Your task to perform on an android device: Open notification settings Image 0: 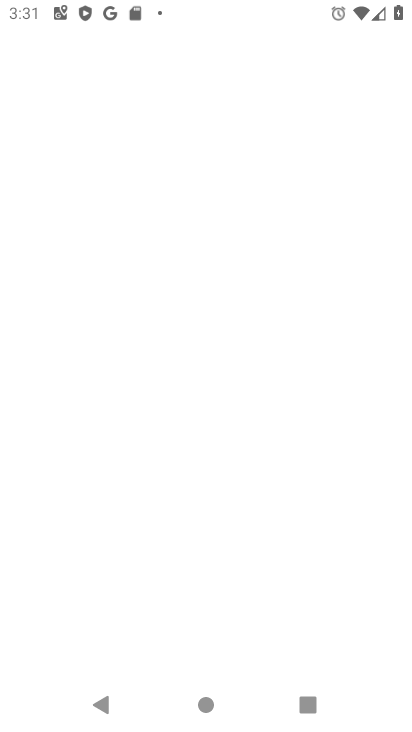
Step 0: click (121, 544)
Your task to perform on an android device: Open notification settings Image 1: 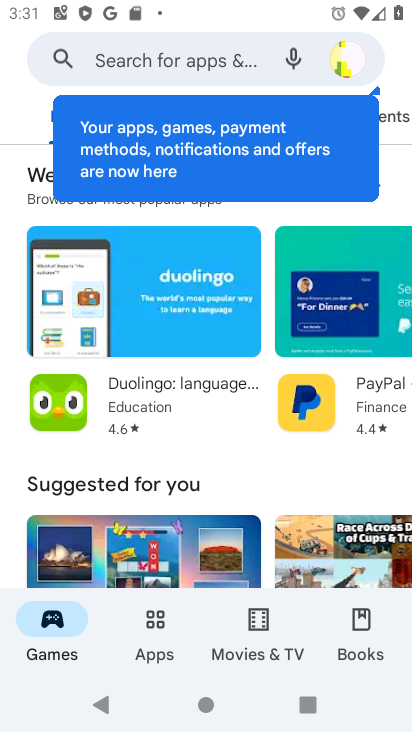
Step 1: press home button
Your task to perform on an android device: Open notification settings Image 2: 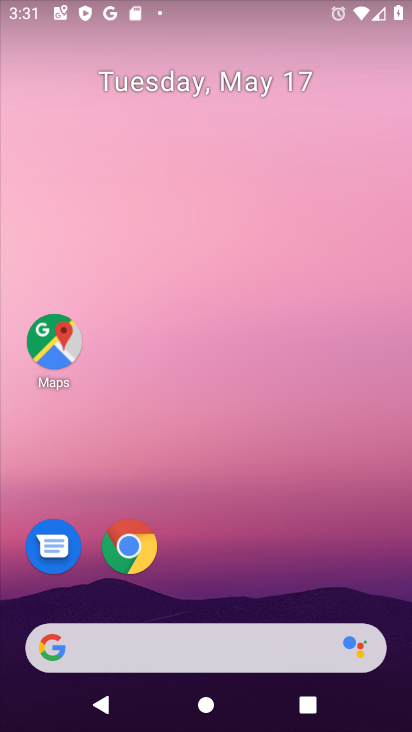
Step 2: drag from (396, 686) to (361, 199)
Your task to perform on an android device: Open notification settings Image 3: 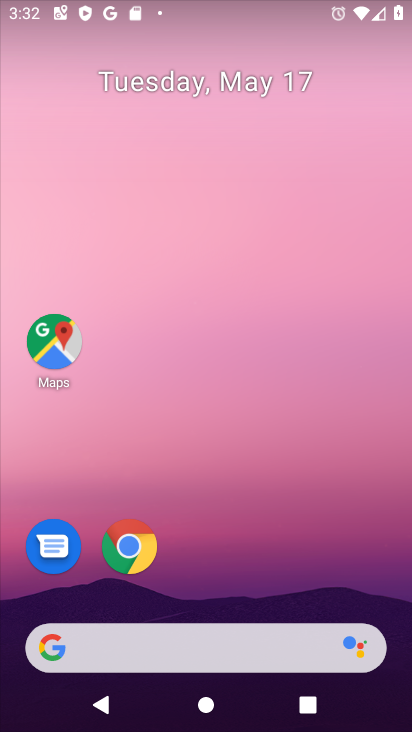
Step 3: drag from (395, 476) to (389, 224)
Your task to perform on an android device: Open notification settings Image 4: 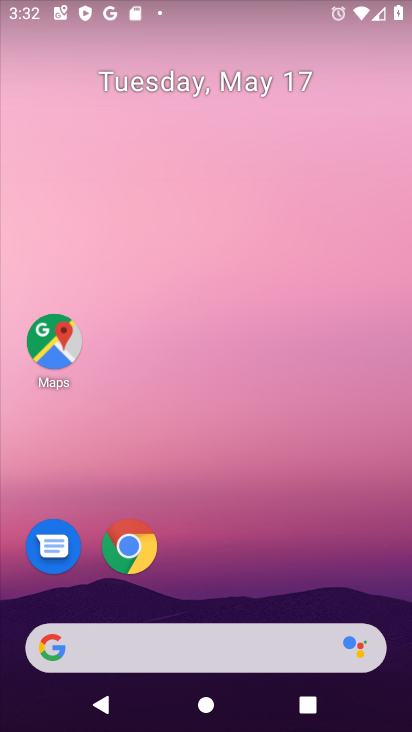
Step 4: drag from (397, 353) to (369, 116)
Your task to perform on an android device: Open notification settings Image 5: 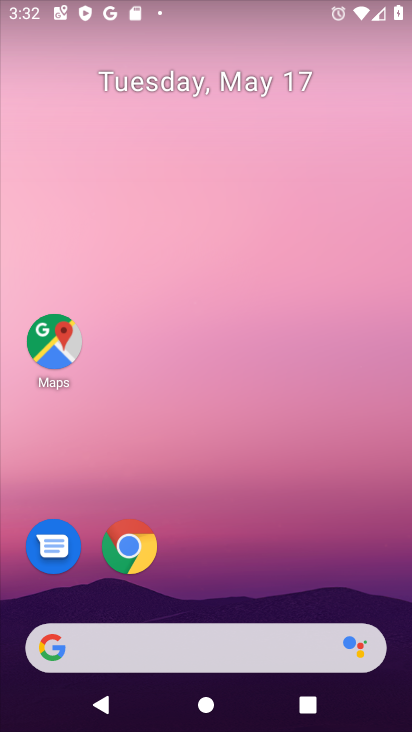
Step 5: drag from (387, 624) to (329, 216)
Your task to perform on an android device: Open notification settings Image 6: 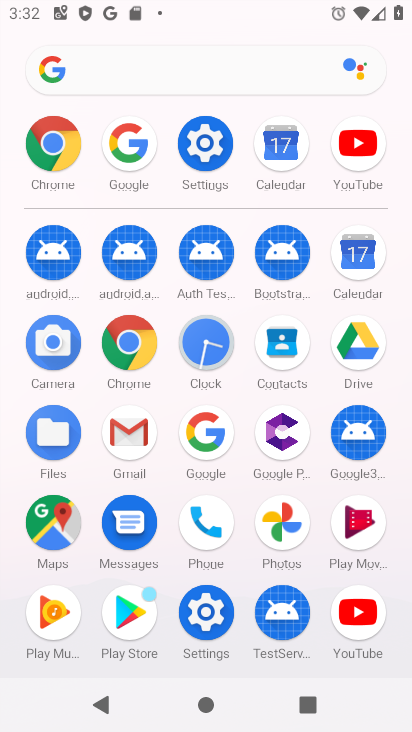
Step 6: click (183, 146)
Your task to perform on an android device: Open notification settings Image 7: 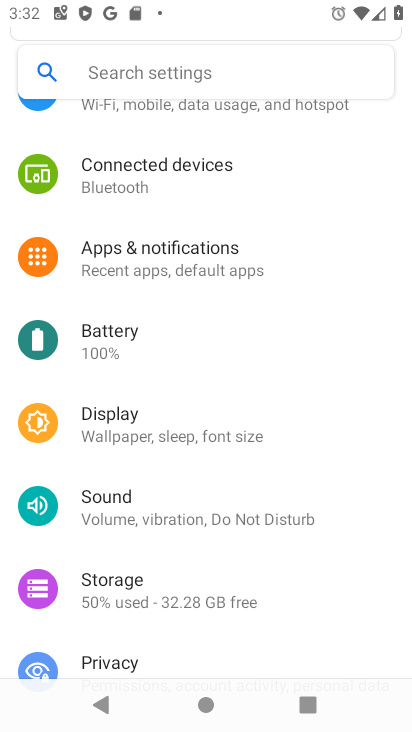
Step 7: click (143, 253)
Your task to perform on an android device: Open notification settings Image 8: 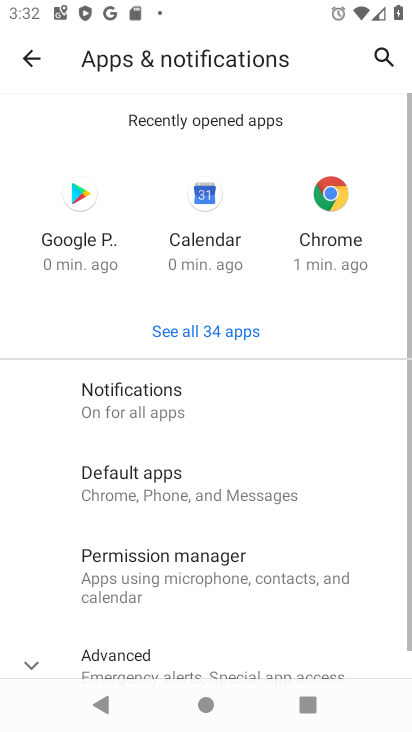
Step 8: click (122, 391)
Your task to perform on an android device: Open notification settings Image 9: 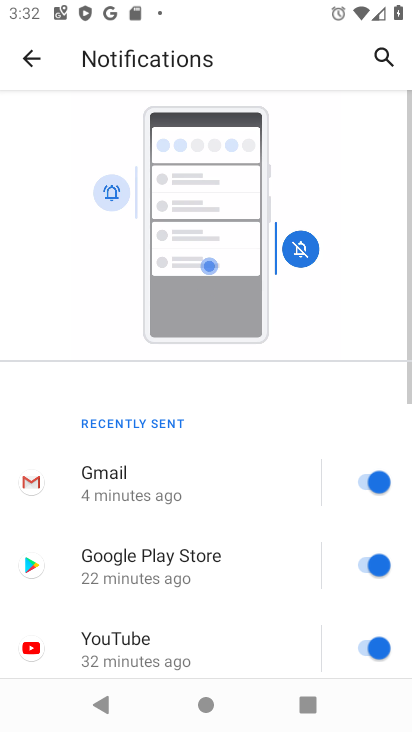
Step 9: task complete